Your task to perform on an android device: Open Google Maps Image 0: 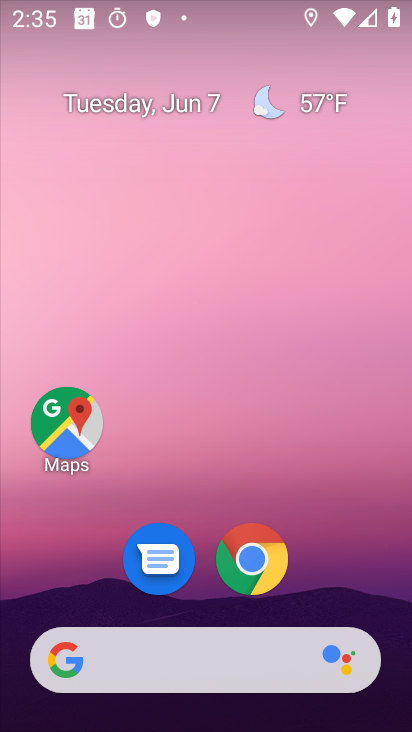
Step 0: drag from (360, 538) to (273, 7)
Your task to perform on an android device: Open Google Maps Image 1: 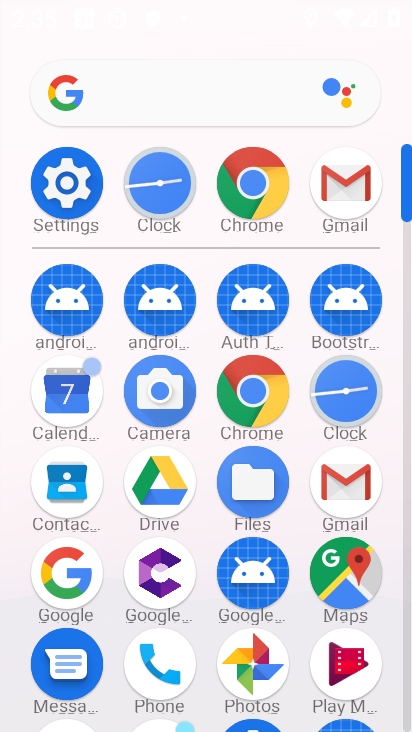
Step 1: drag from (1, 553) to (8, 250)
Your task to perform on an android device: Open Google Maps Image 2: 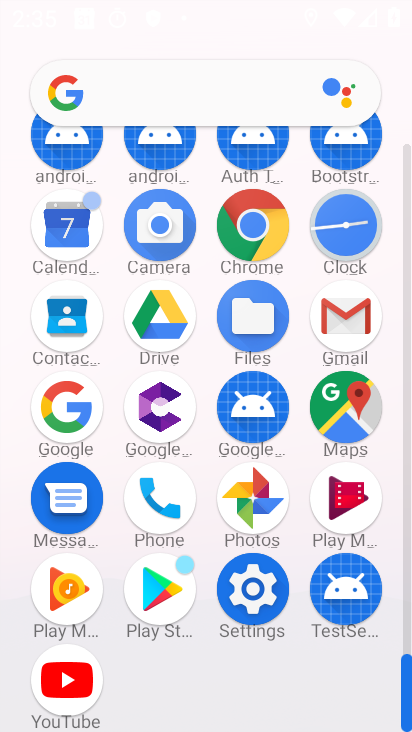
Step 2: drag from (32, 270) to (32, 595)
Your task to perform on an android device: Open Google Maps Image 3: 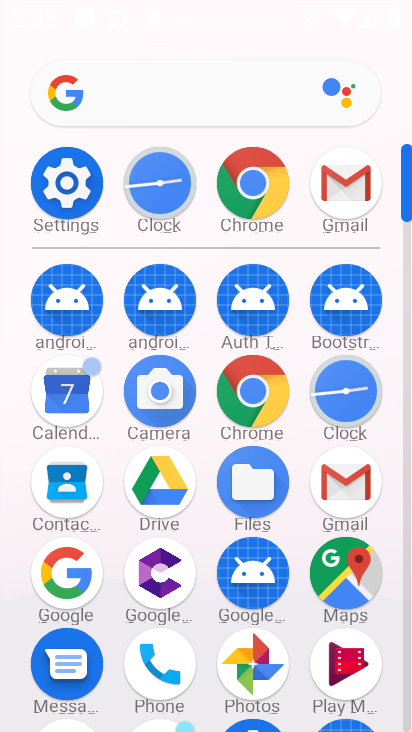
Step 3: click (341, 575)
Your task to perform on an android device: Open Google Maps Image 4: 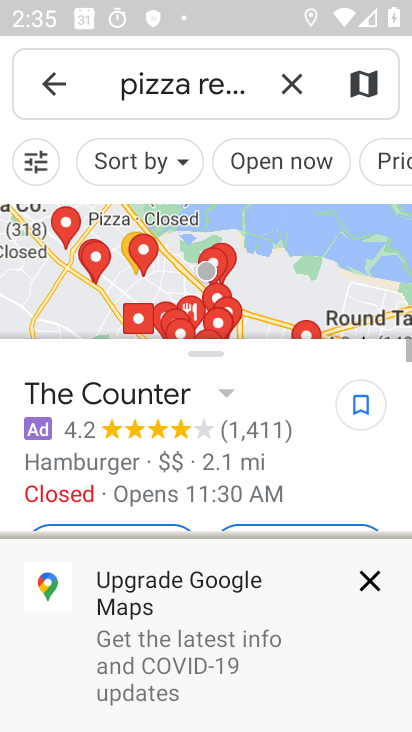
Step 4: click (51, 77)
Your task to perform on an android device: Open Google Maps Image 5: 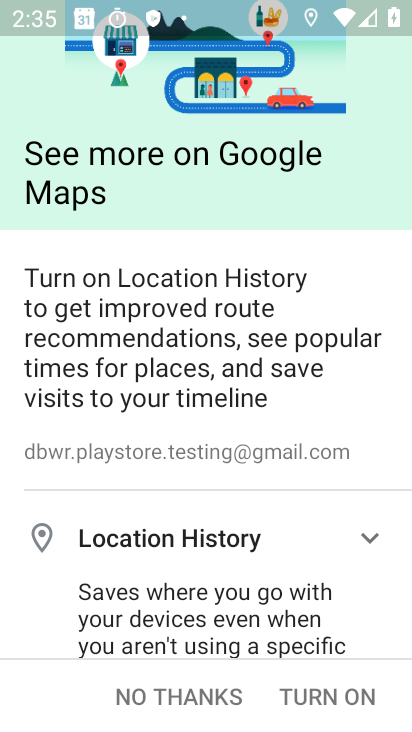
Step 5: click (350, 692)
Your task to perform on an android device: Open Google Maps Image 6: 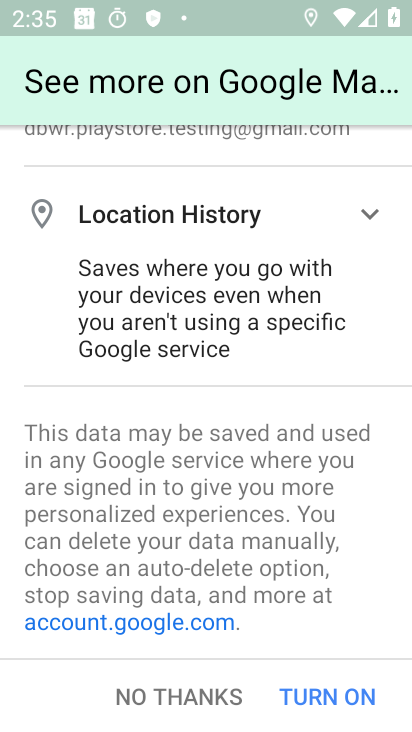
Step 6: click (343, 694)
Your task to perform on an android device: Open Google Maps Image 7: 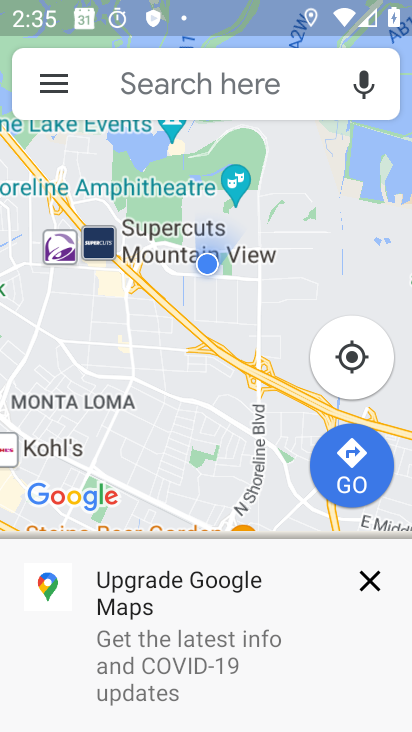
Step 7: task complete